Your task to perform on an android device: turn off notifications settings in the gmail app Image 0: 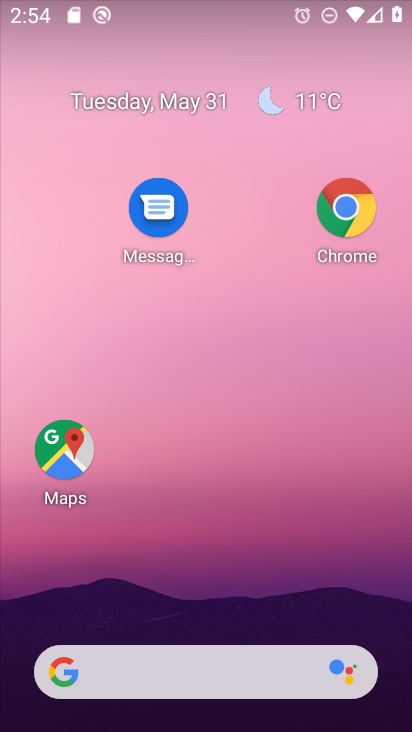
Step 0: drag from (200, 603) to (272, 137)
Your task to perform on an android device: turn off notifications settings in the gmail app Image 1: 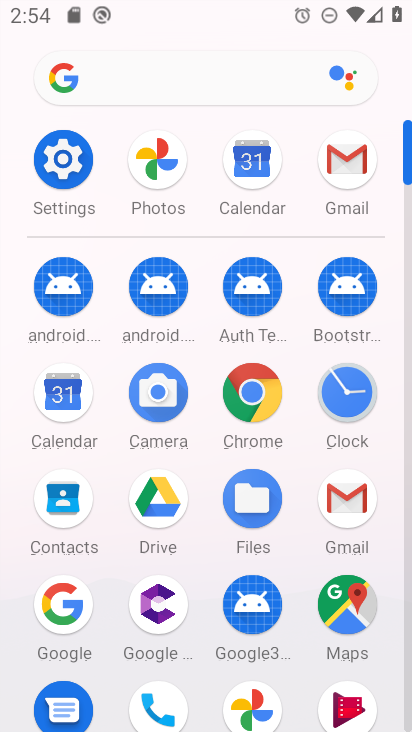
Step 1: click (333, 491)
Your task to perform on an android device: turn off notifications settings in the gmail app Image 2: 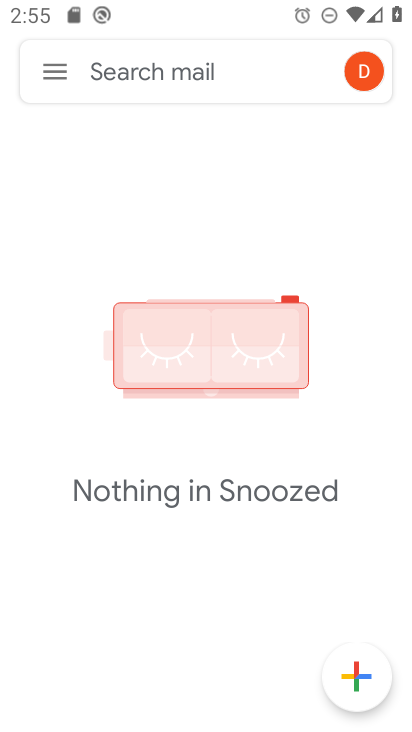
Step 2: click (48, 73)
Your task to perform on an android device: turn off notifications settings in the gmail app Image 3: 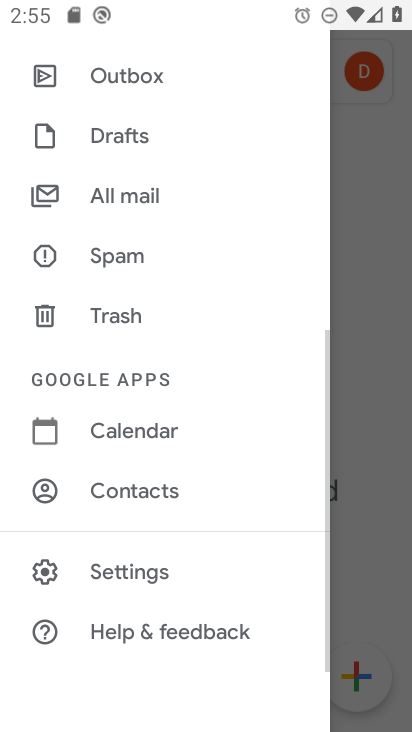
Step 3: click (151, 569)
Your task to perform on an android device: turn off notifications settings in the gmail app Image 4: 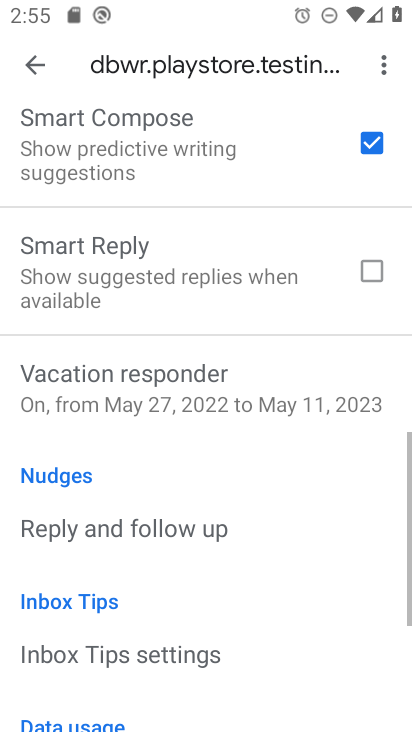
Step 4: drag from (146, 423) to (255, 0)
Your task to perform on an android device: turn off notifications settings in the gmail app Image 5: 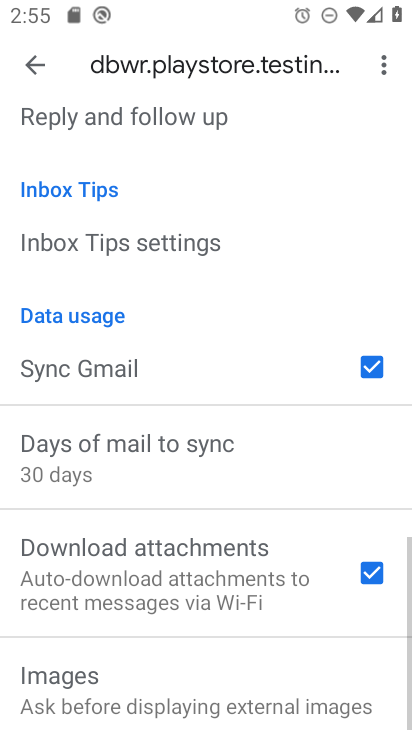
Step 5: drag from (190, 257) to (411, 266)
Your task to perform on an android device: turn off notifications settings in the gmail app Image 6: 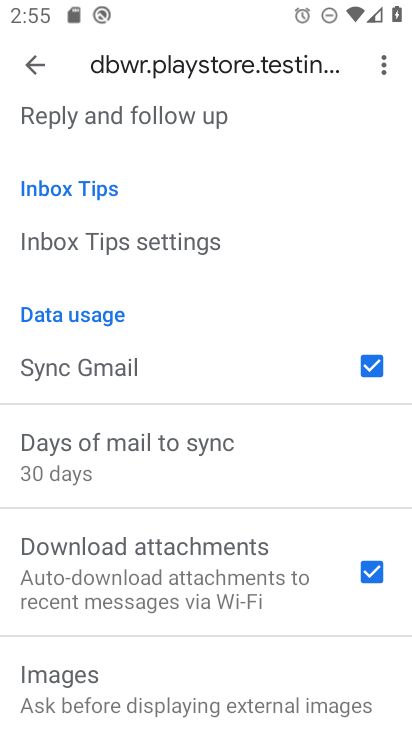
Step 6: drag from (218, 264) to (273, 697)
Your task to perform on an android device: turn off notifications settings in the gmail app Image 7: 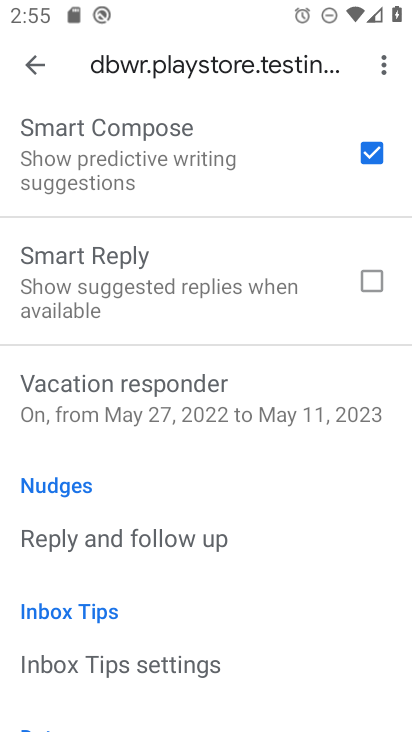
Step 7: drag from (199, 186) to (259, 648)
Your task to perform on an android device: turn off notifications settings in the gmail app Image 8: 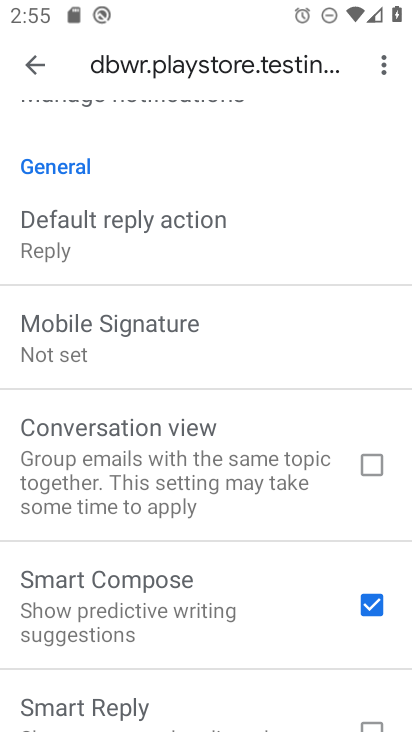
Step 8: drag from (140, 233) to (238, 635)
Your task to perform on an android device: turn off notifications settings in the gmail app Image 9: 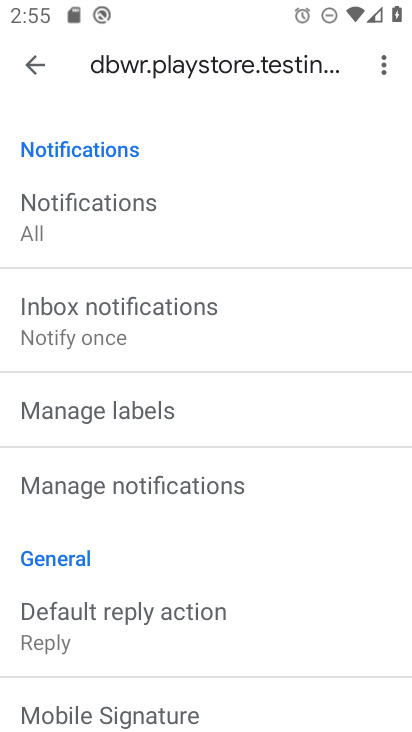
Step 9: click (131, 491)
Your task to perform on an android device: turn off notifications settings in the gmail app Image 10: 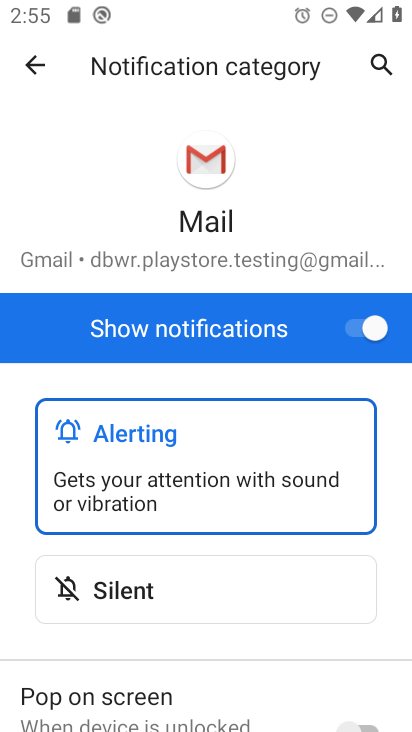
Step 10: click (367, 335)
Your task to perform on an android device: turn off notifications settings in the gmail app Image 11: 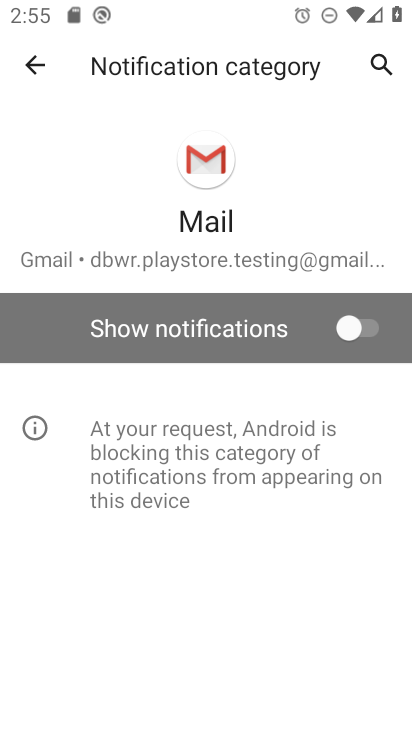
Step 11: task complete